Your task to perform on an android device: turn on sleep mode Image 0: 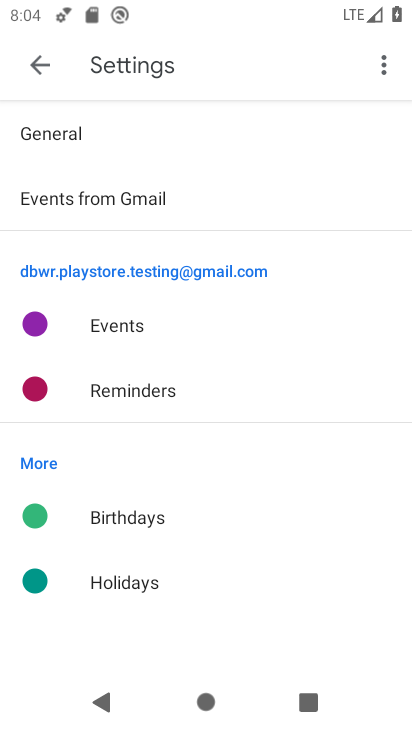
Step 0: press home button
Your task to perform on an android device: turn on sleep mode Image 1: 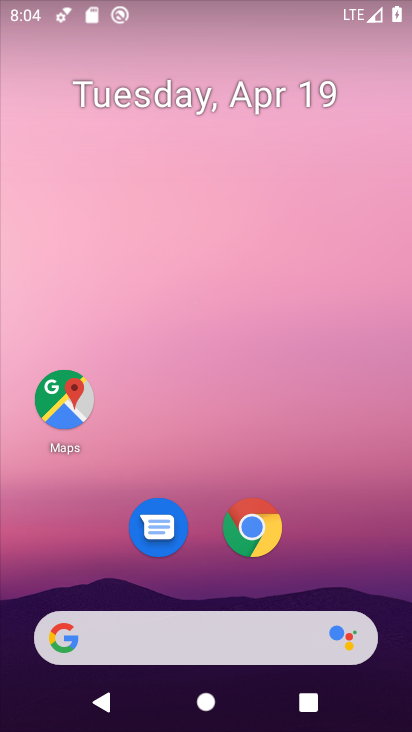
Step 1: drag from (329, 235) to (328, 51)
Your task to perform on an android device: turn on sleep mode Image 2: 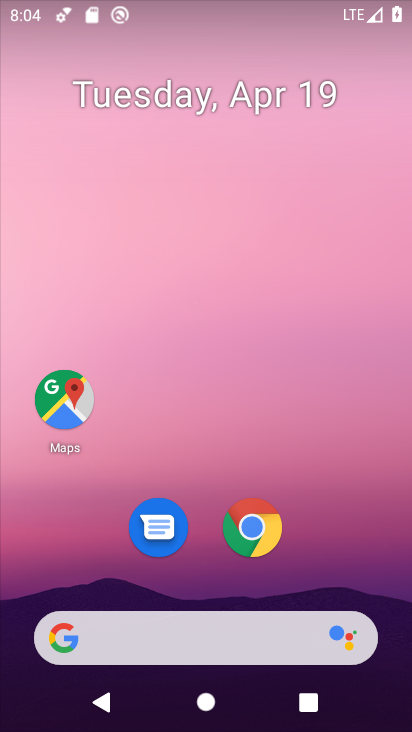
Step 2: drag from (359, 562) to (364, 137)
Your task to perform on an android device: turn on sleep mode Image 3: 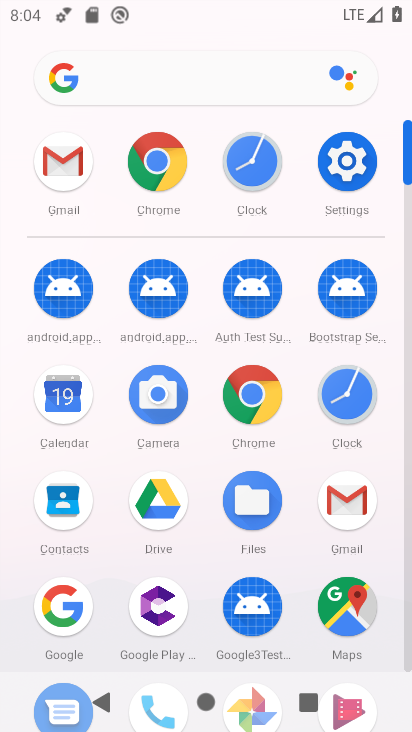
Step 3: click (357, 166)
Your task to perform on an android device: turn on sleep mode Image 4: 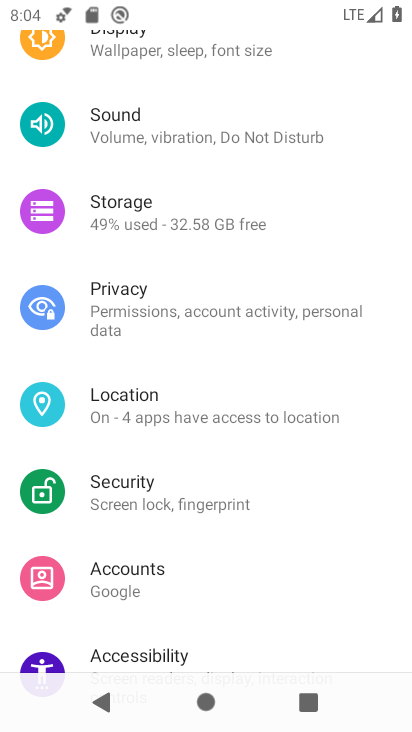
Step 4: drag from (352, 85) to (354, 577)
Your task to perform on an android device: turn on sleep mode Image 5: 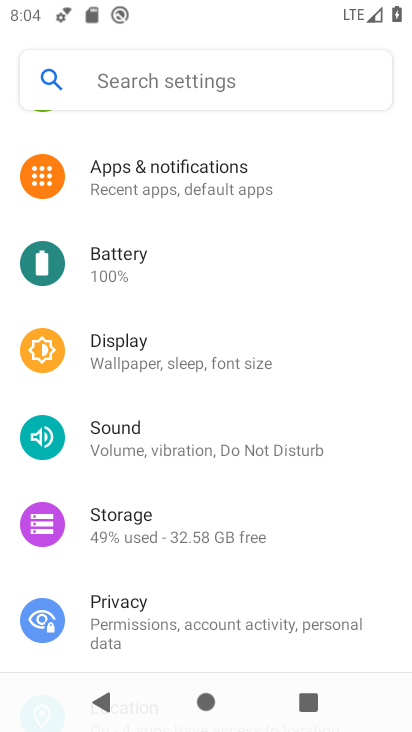
Step 5: click (237, 85)
Your task to perform on an android device: turn on sleep mode Image 6: 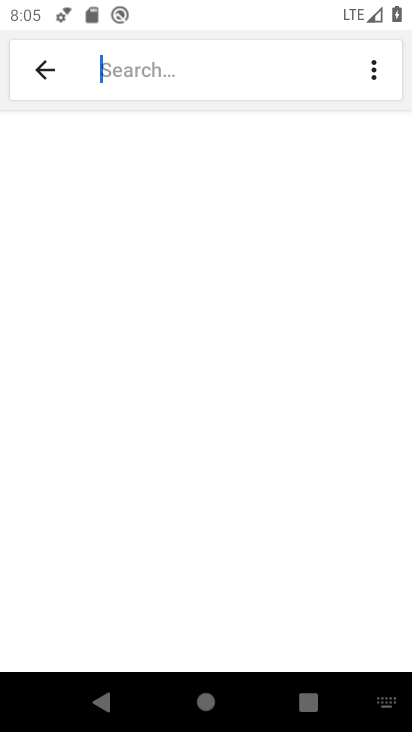
Step 6: type "sleep mode"
Your task to perform on an android device: turn on sleep mode Image 7: 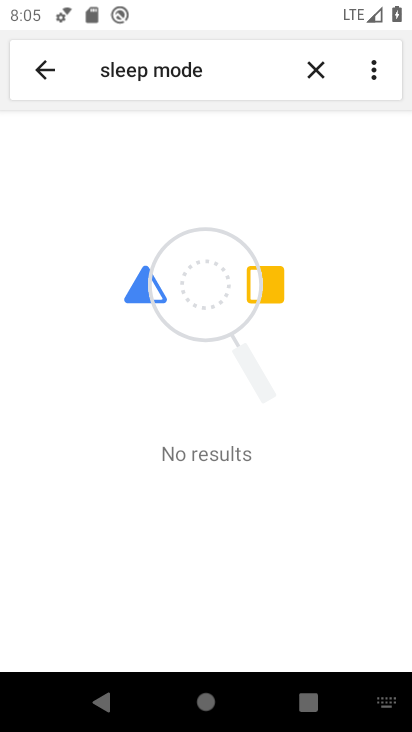
Step 7: task complete